Your task to perform on an android device: install app "Fetch Rewards" Image 0: 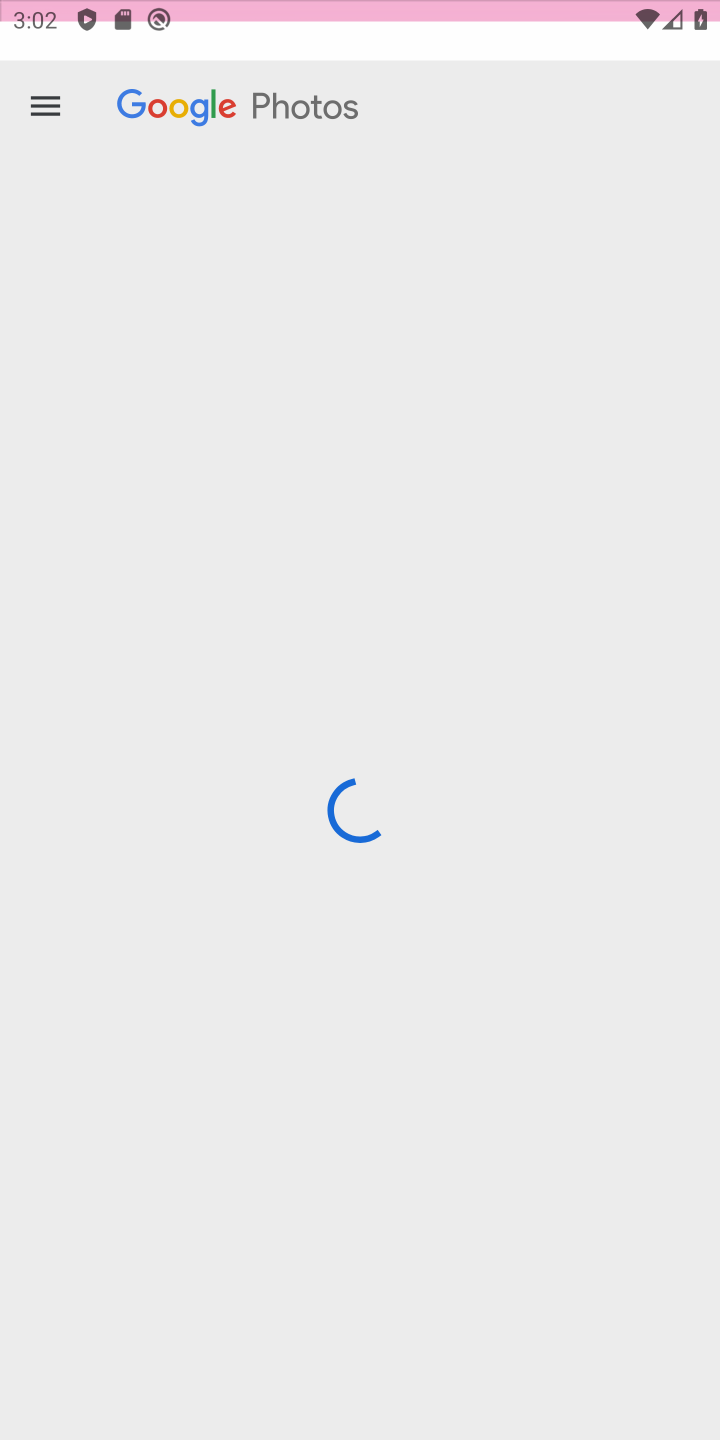
Step 0: press home button
Your task to perform on an android device: install app "Fetch Rewards" Image 1: 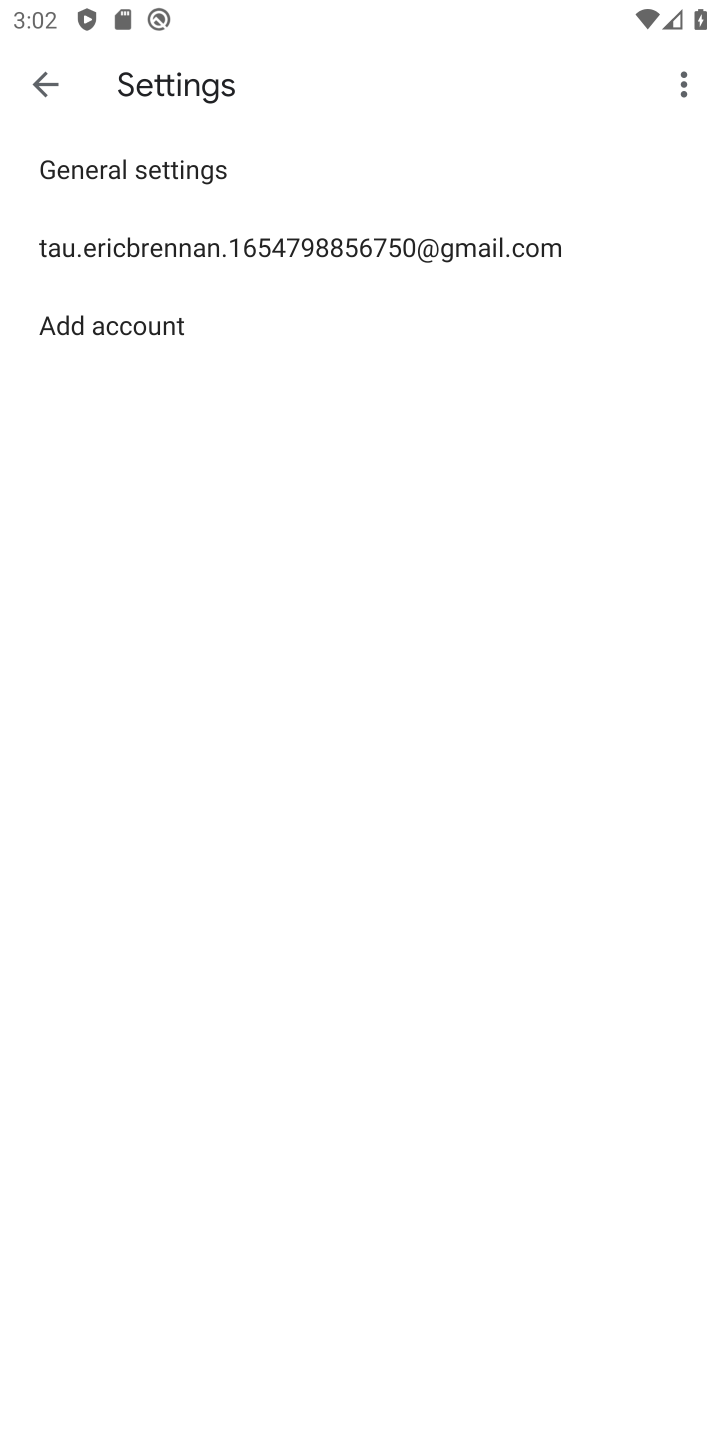
Step 1: press home button
Your task to perform on an android device: install app "Fetch Rewards" Image 2: 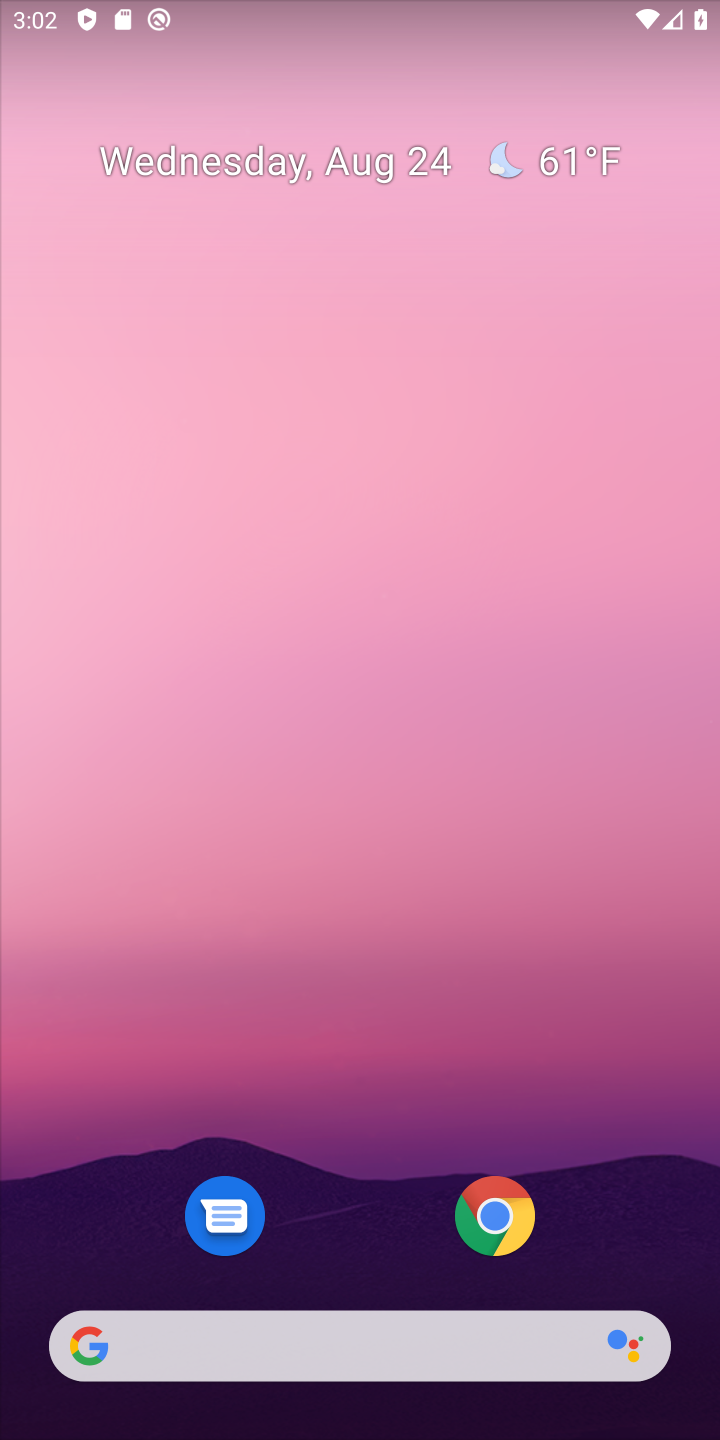
Step 2: press home button
Your task to perform on an android device: install app "Fetch Rewards" Image 3: 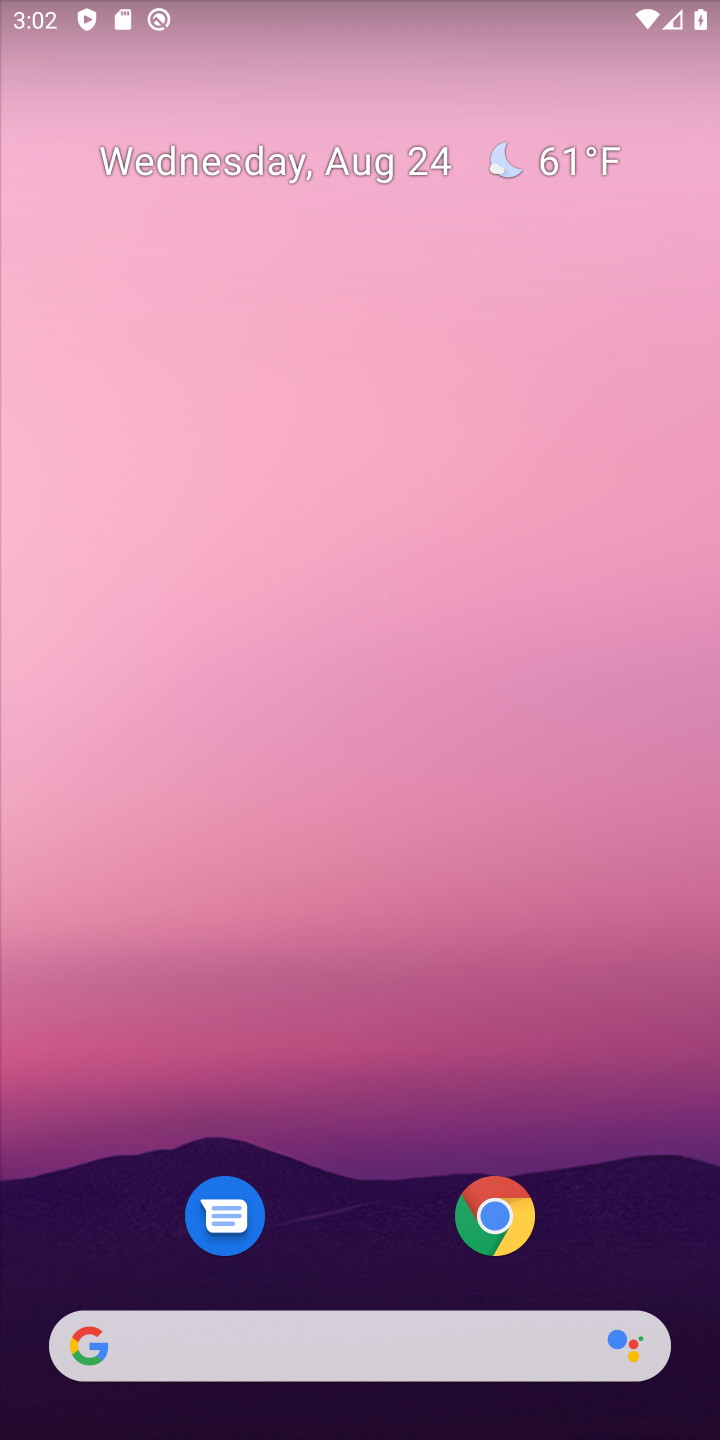
Step 3: drag from (644, 1166) to (610, 106)
Your task to perform on an android device: install app "Fetch Rewards" Image 4: 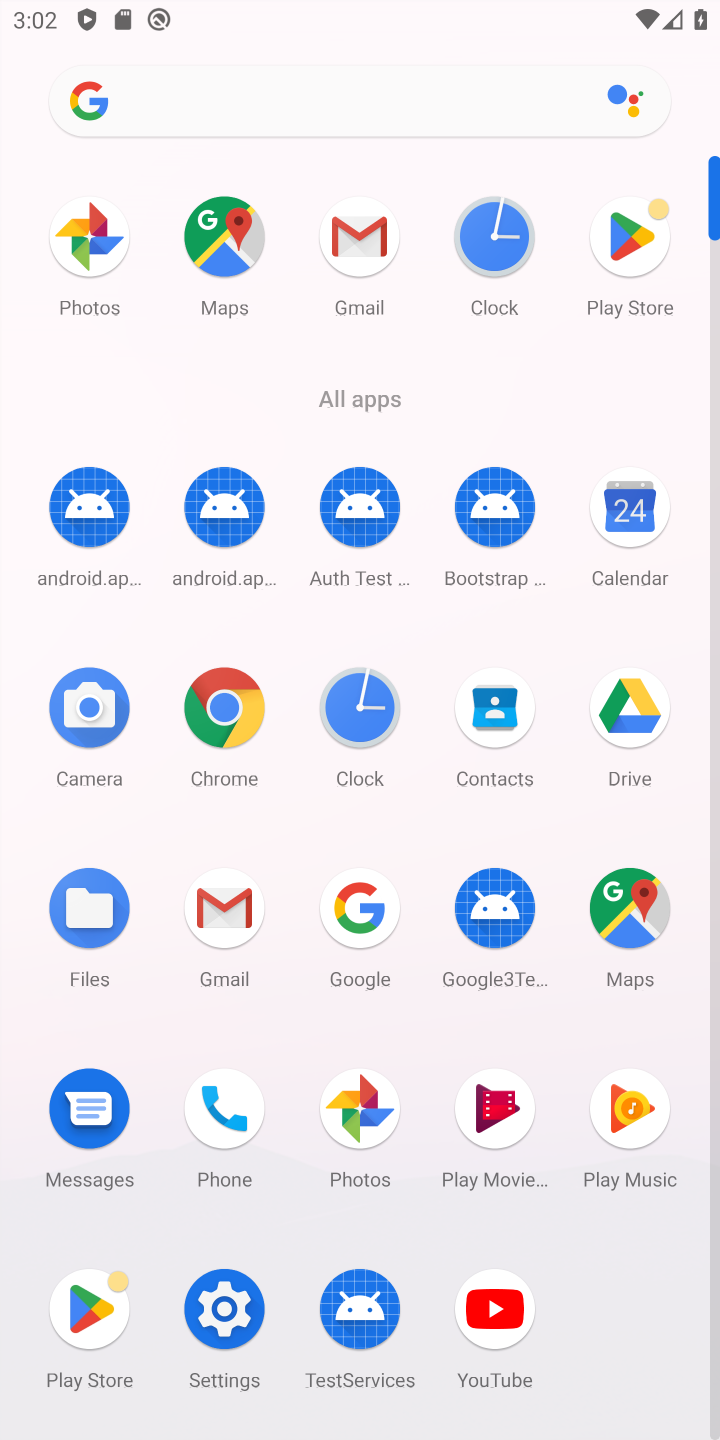
Step 4: click (643, 231)
Your task to perform on an android device: install app "Fetch Rewards" Image 5: 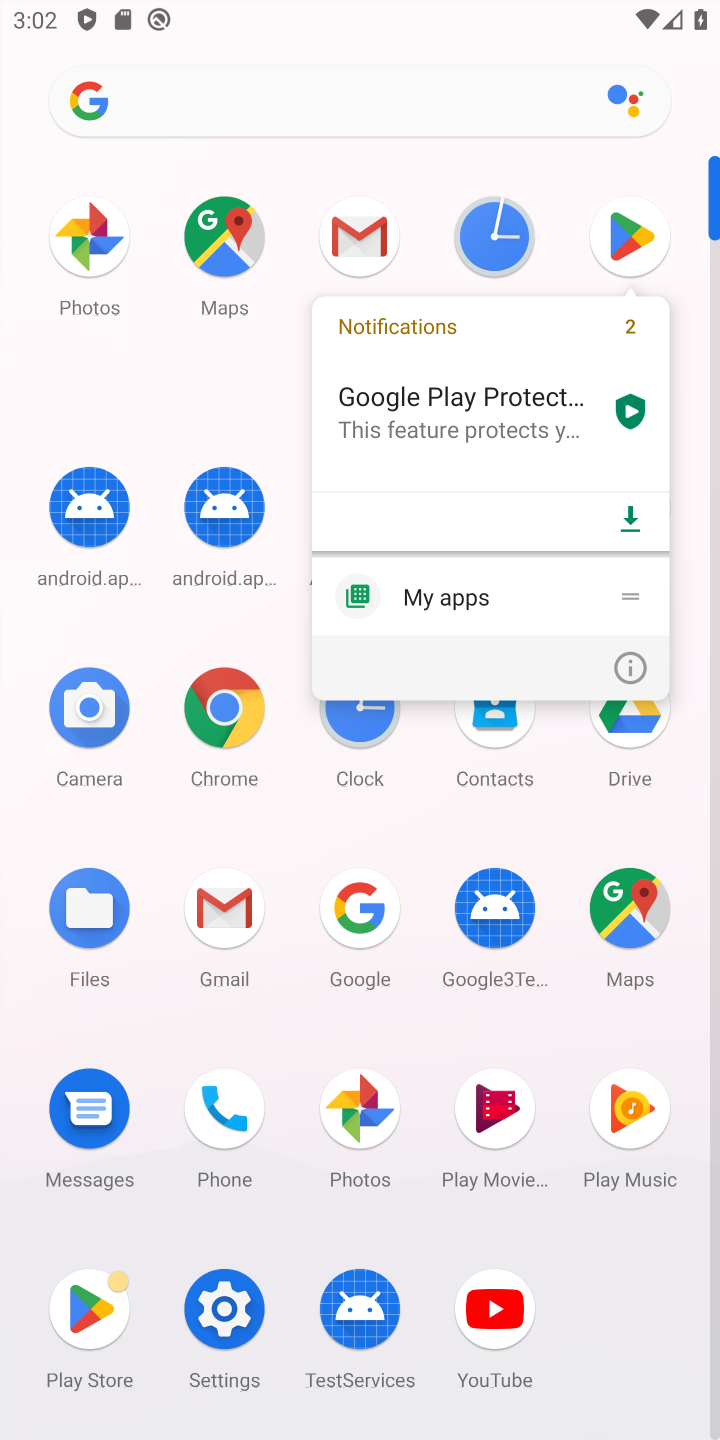
Step 5: click (632, 226)
Your task to perform on an android device: install app "Fetch Rewards" Image 6: 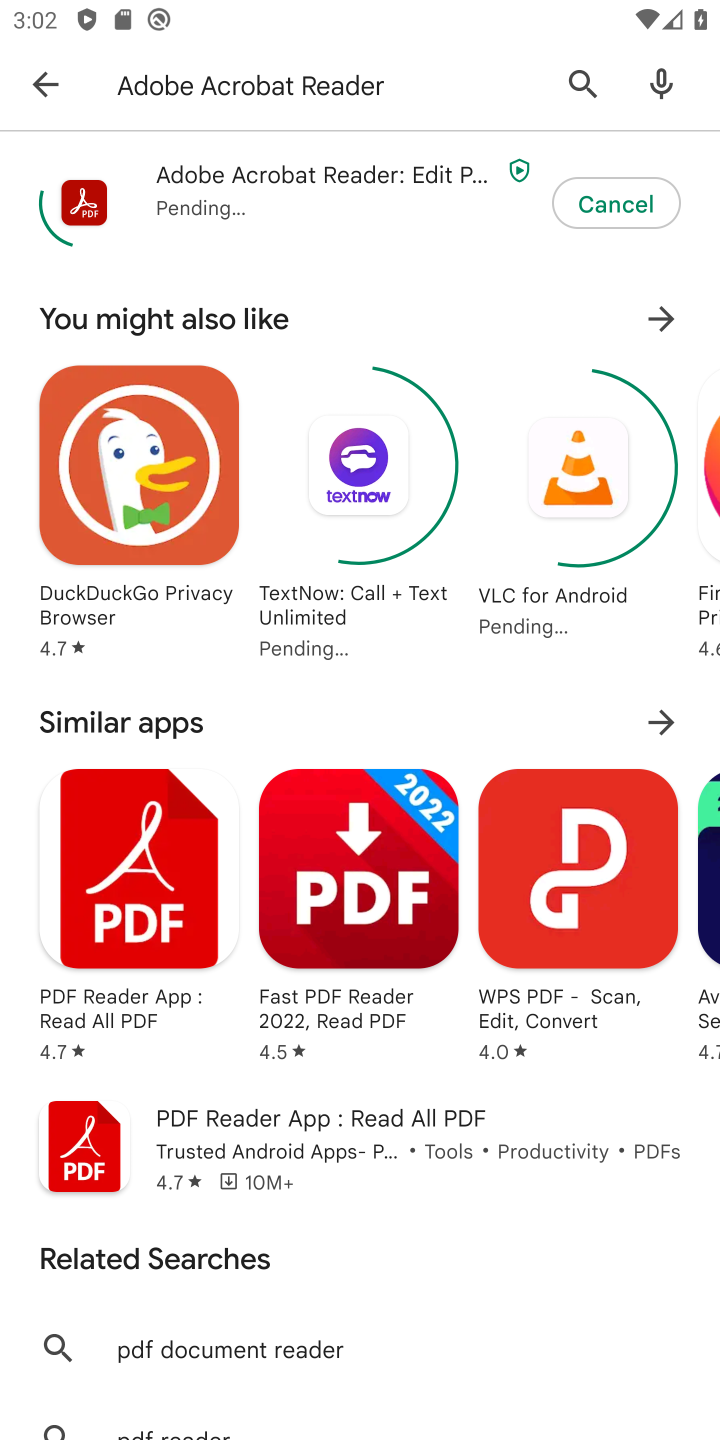
Step 6: press back button
Your task to perform on an android device: install app "Fetch Rewards" Image 7: 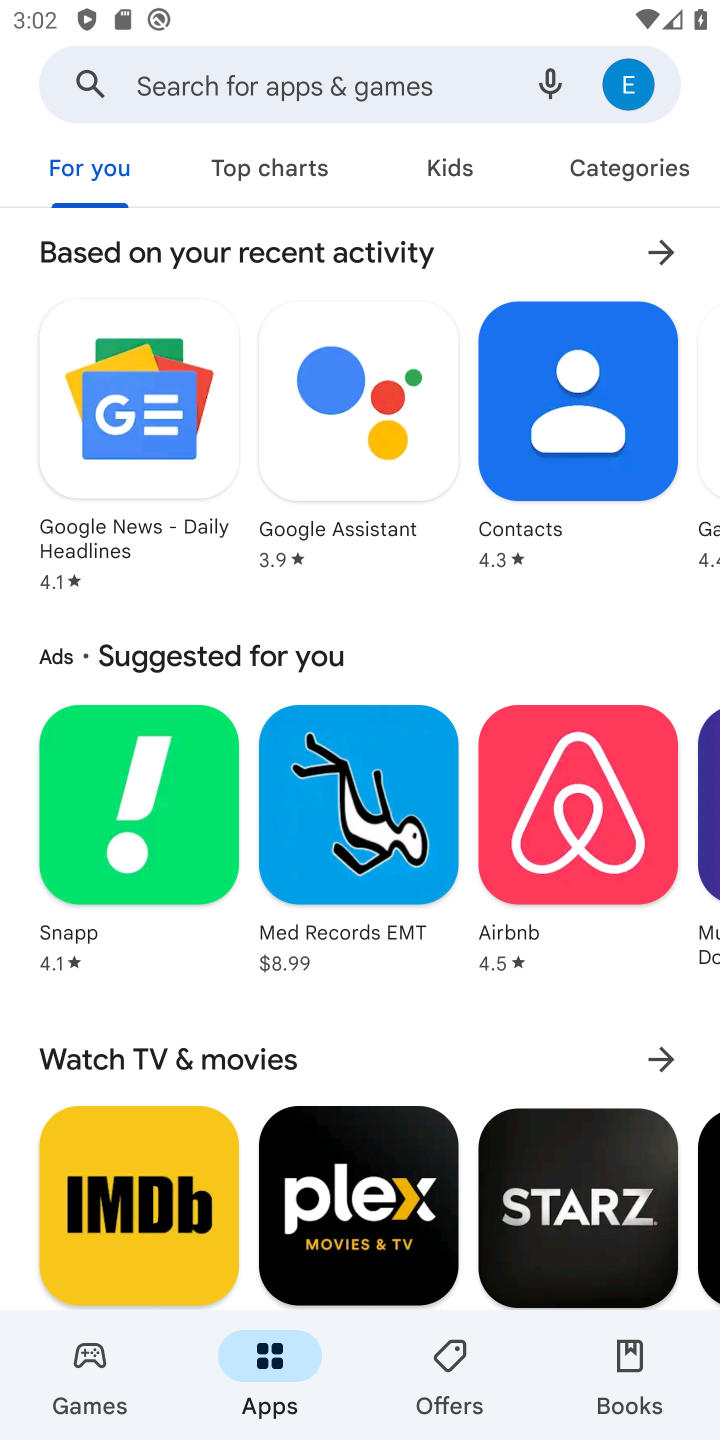
Step 7: click (321, 91)
Your task to perform on an android device: install app "Fetch Rewards" Image 8: 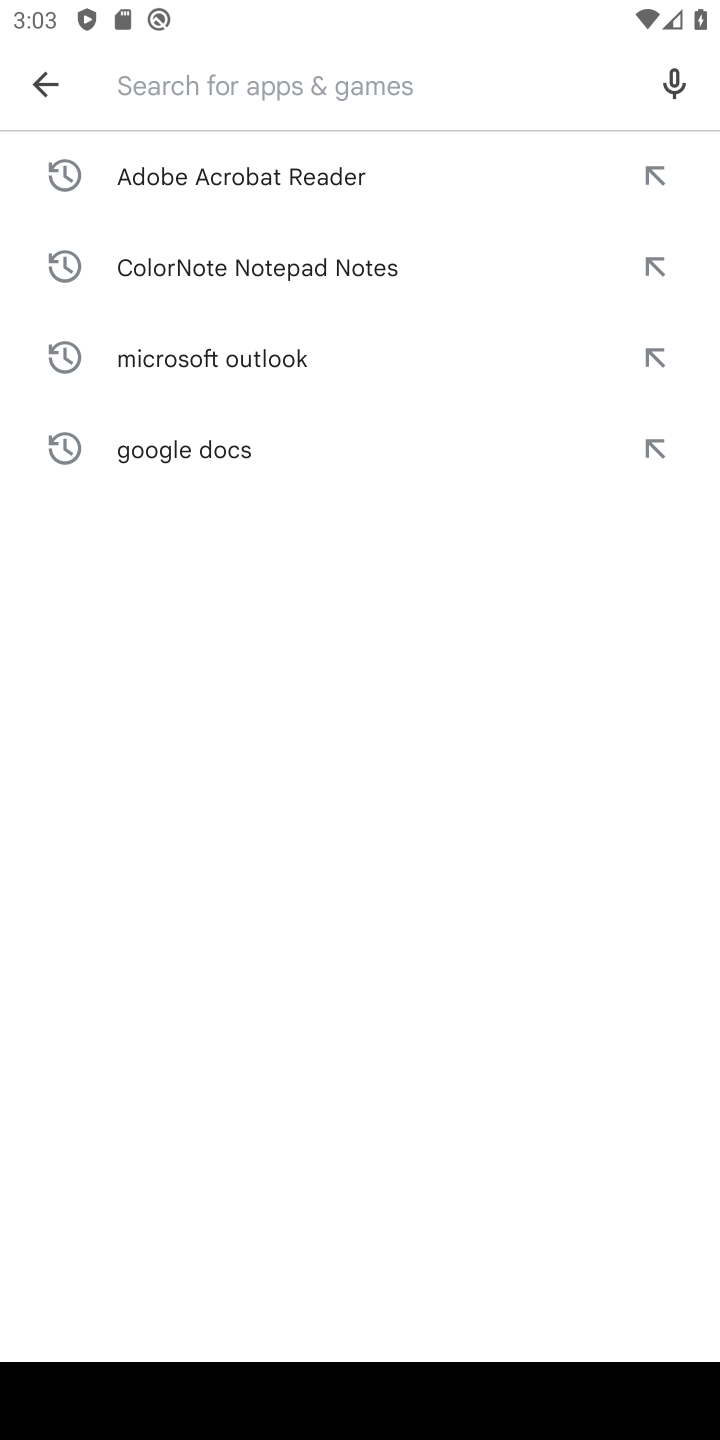
Step 8: press enter
Your task to perform on an android device: install app "Fetch Rewards" Image 9: 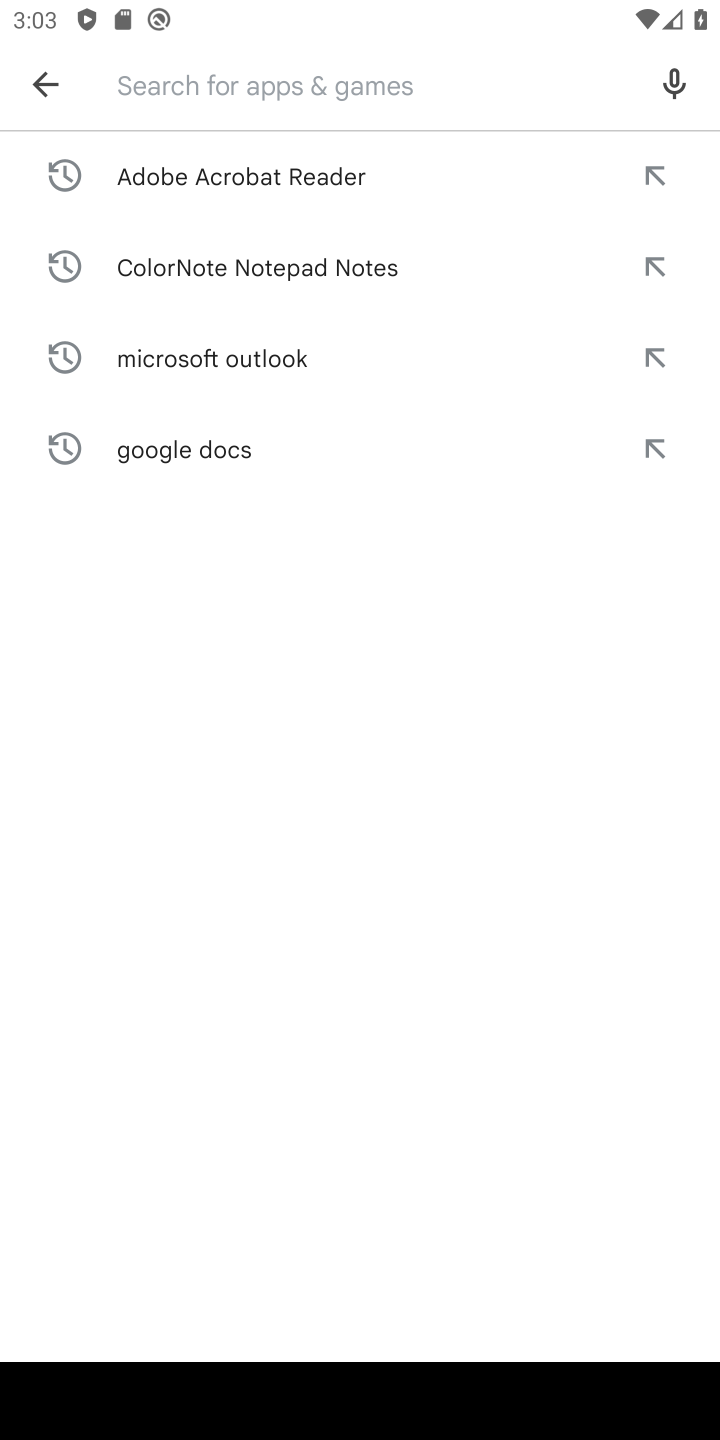
Step 9: type "Fetch Rewards"
Your task to perform on an android device: install app "Fetch Rewards" Image 10: 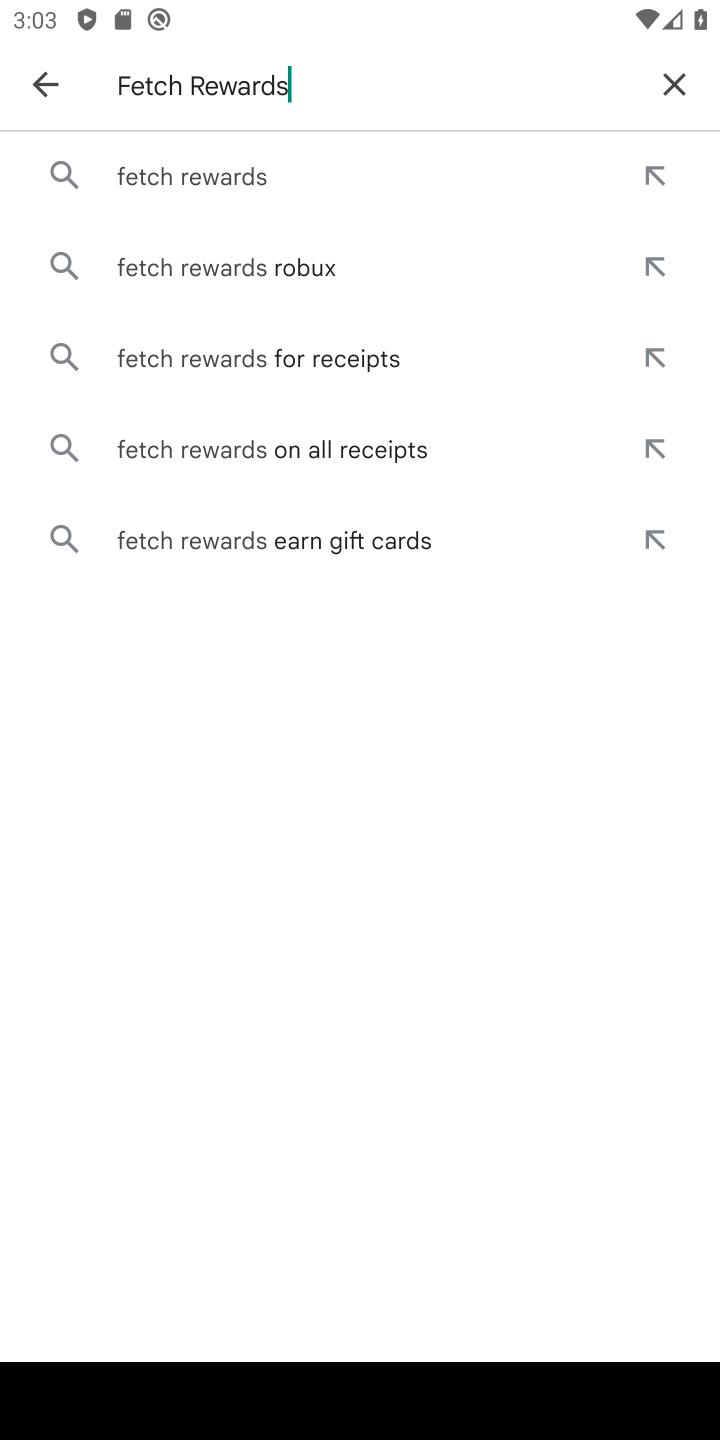
Step 10: click (276, 182)
Your task to perform on an android device: install app "Fetch Rewards" Image 11: 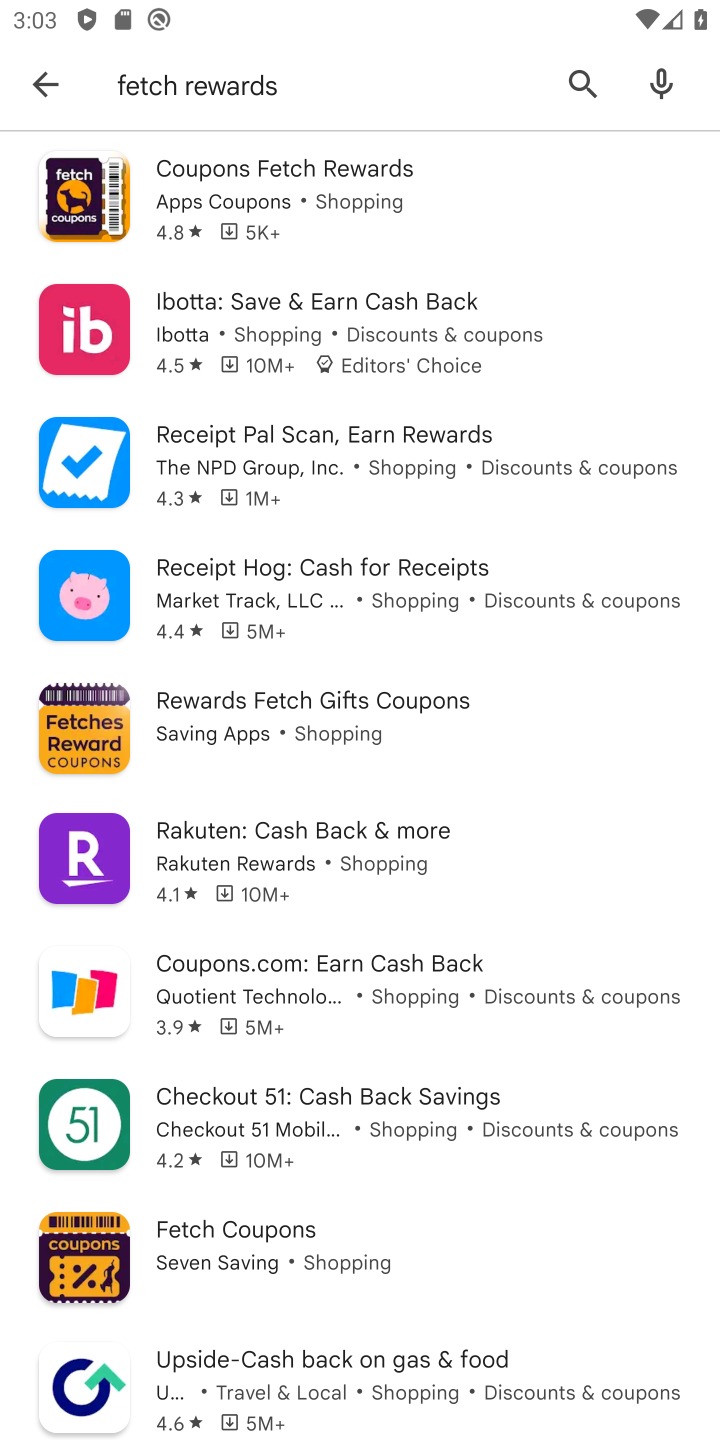
Step 11: task complete